Your task to perform on an android device: check out phone information Image 0: 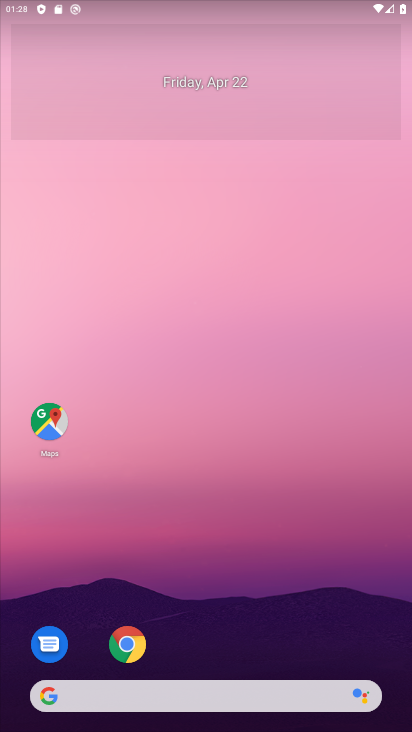
Step 0: drag from (252, 582) to (211, 201)
Your task to perform on an android device: check out phone information Image 1: 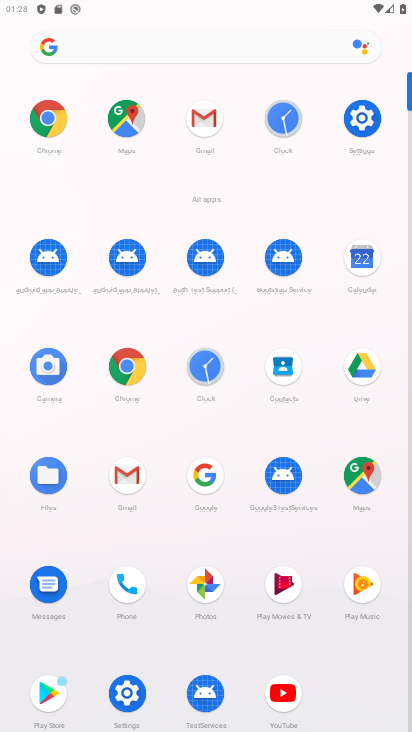
Step 1: click (339, 118)
Your task to perform on an android device: check out phone information Image 2: 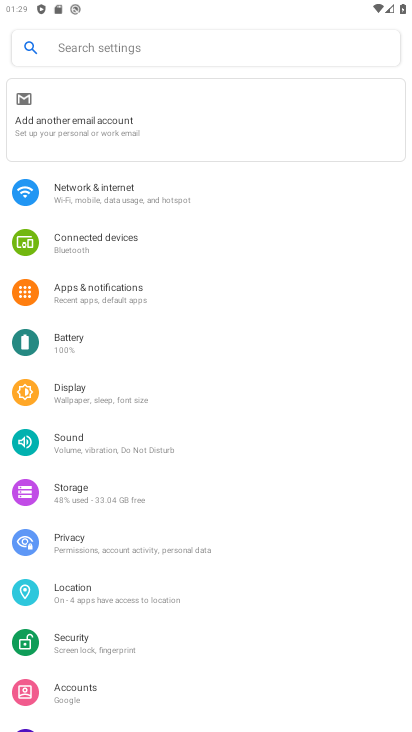
Step 2: drag from (295, 641) to (245, 136)
Your task to perform on an android device: check out phone information Image 3: 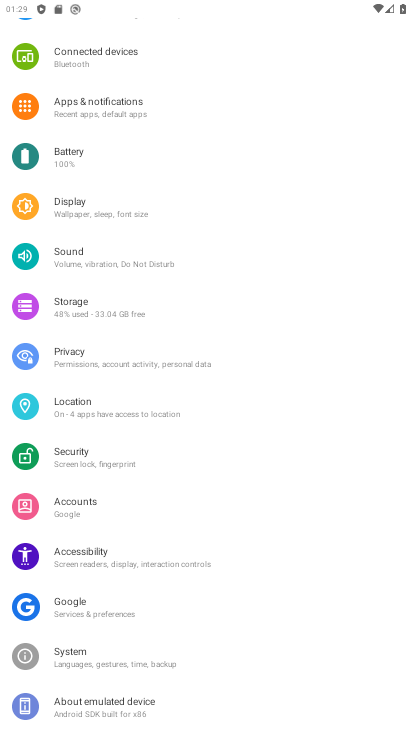
Step 3: click (261, 702)
Your task to perform on an android device: check out phone information Image 4: 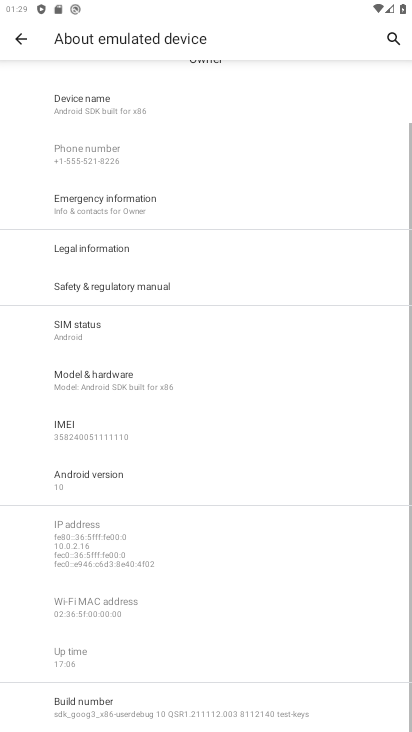
Step 4: task complete